Your task to perform on an android device: turn on data saver in the chrome app Image 0: 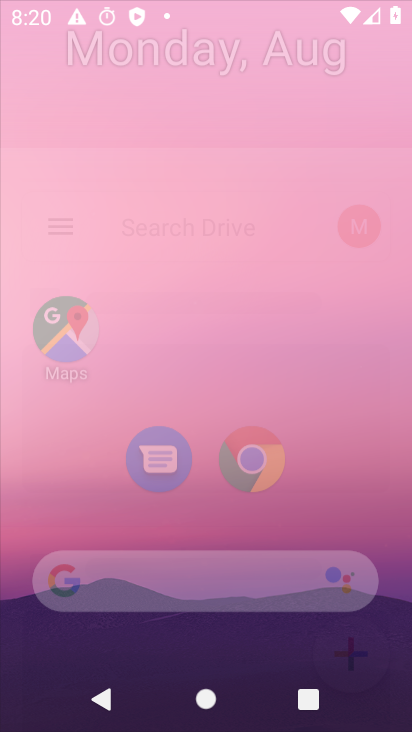
Step 0: press home button
Your task to perform on an android device: turn on data saver in the chrome app Image 1: 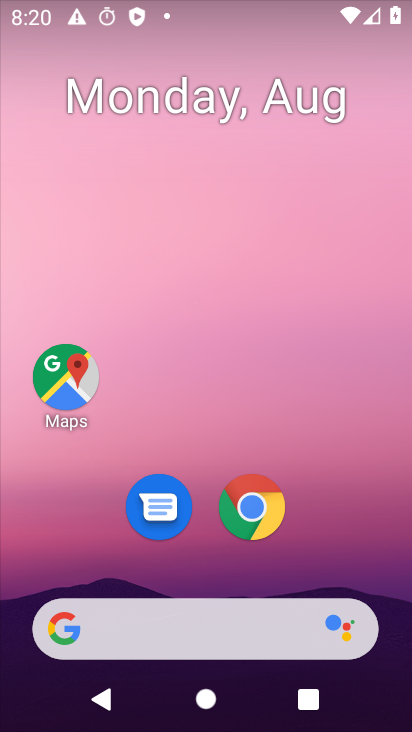
Step 1: click (251, 516)
Your task to perform on an android device: turn on data saver in the chrome app Image 2: 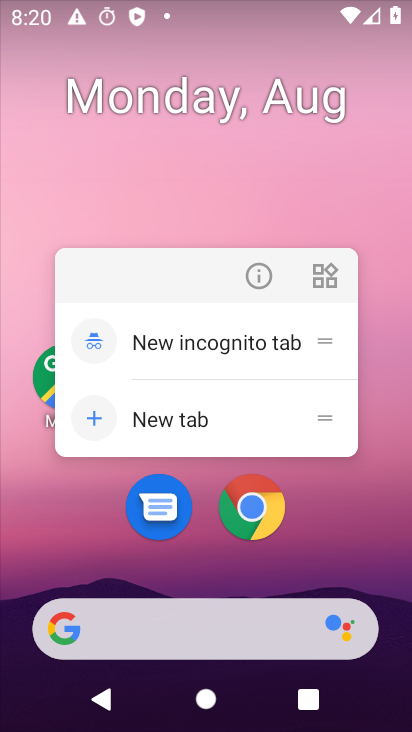
Step 2: click (250, 513)
Your task to perform on an android device: turn on data saver in the chrome app Image 3: 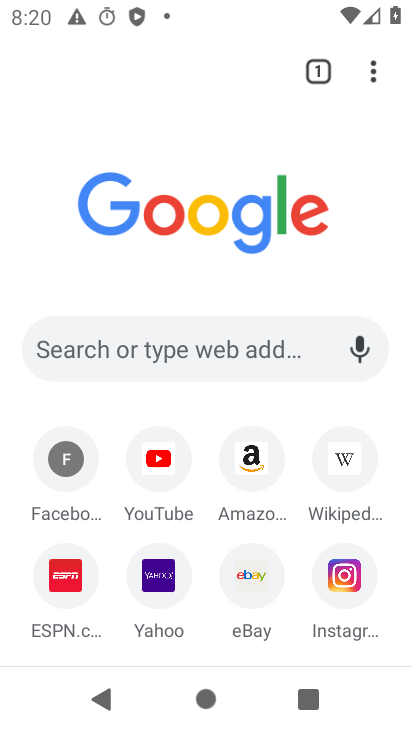
Step 3: drag from (373, 68) to (264, 505)
Your task to perform on an android device: turn on data saver in the chrome app Image 4: 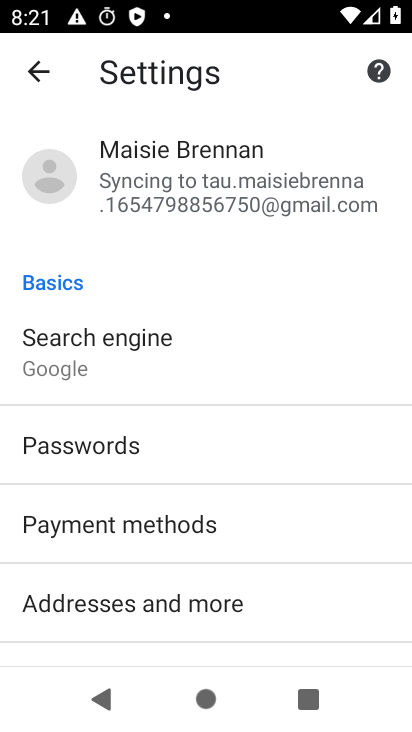
Step 4: drag from (229, 588) to (315, 287)
Your task to perform on an android device: turn on data saver in the chrome app Image 5: 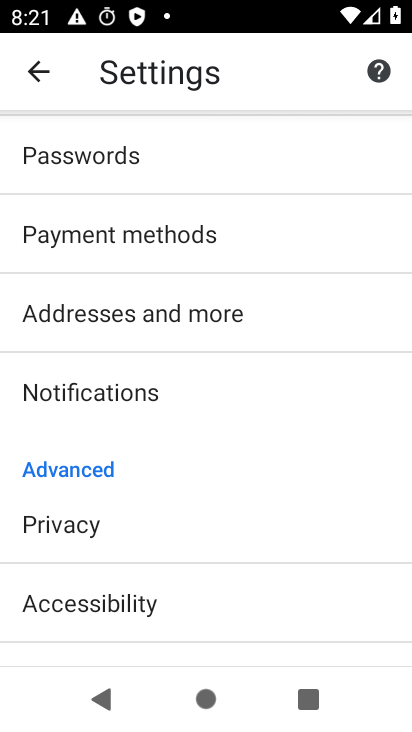
Step 5: drag from (257, 602) to (308, 127)
Your task to perform on an android device: turn on data saver in the chrome app Image 6: 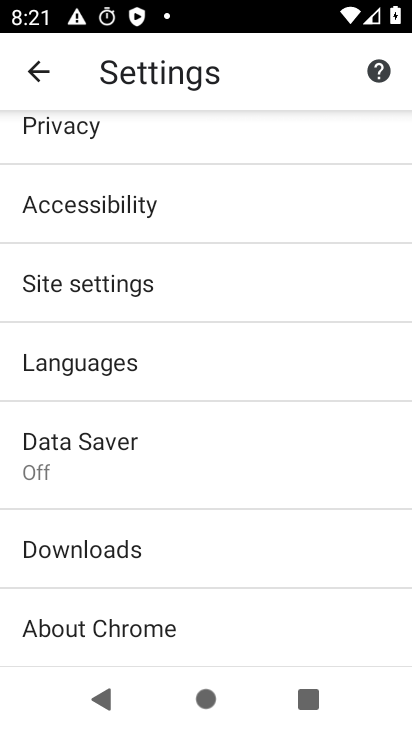
Step 6: click (114, 444)
Your task to perform on an android device: turn on data saver in the chrome app Image 7: 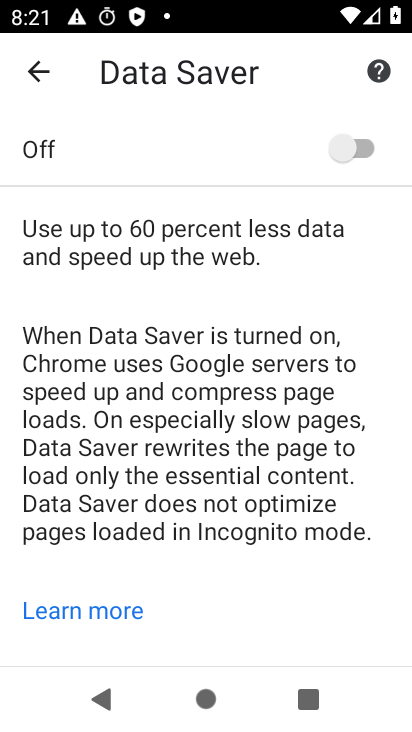
Step 7: click (368, 146)
Your task to perform on an android device: turn on data saver in the chrome app Image 8: 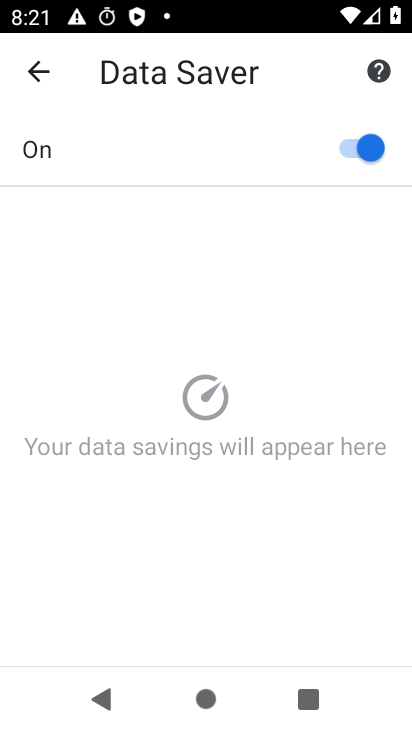
Step 8: task complete